Your task to perform on an android device: change alarm snooze length Image 0: 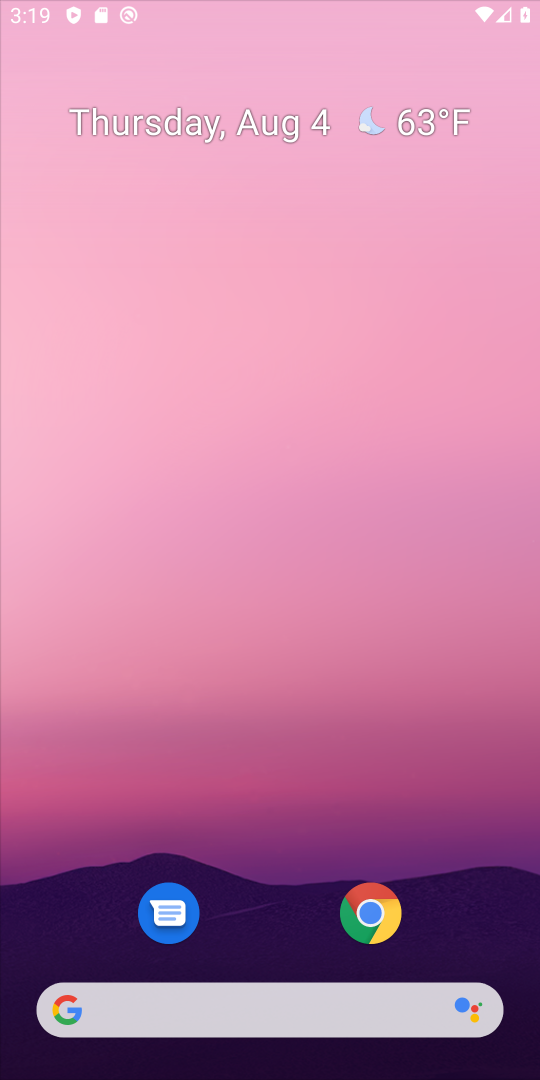
Step 0: press home button
Your task to perform on an android device: change alarm snooze length Image 1: 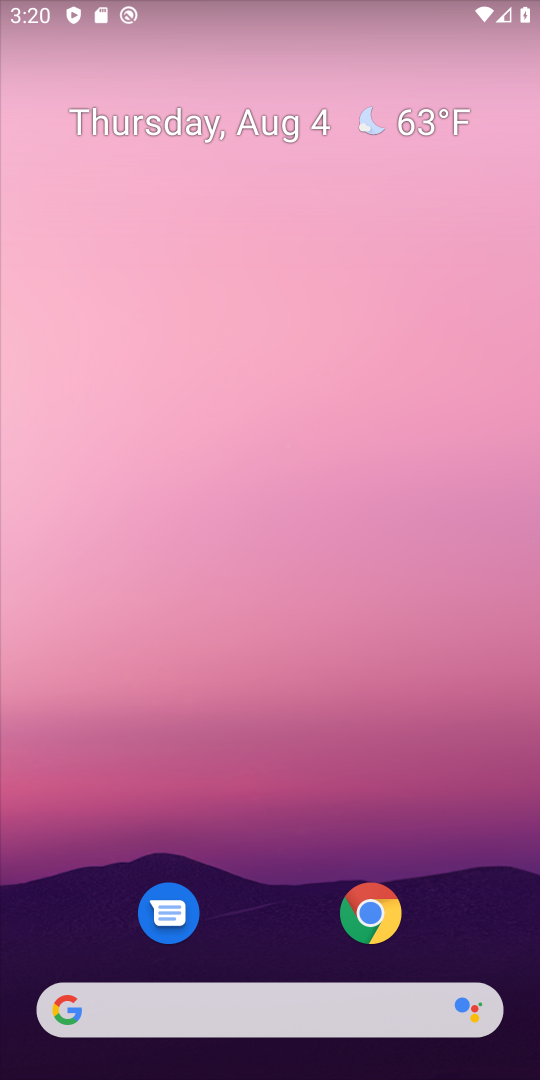
Step 1: drag from (241, 970) to (128, 240)
Your task to perform on an android device: change alarm snooze length Image 2: 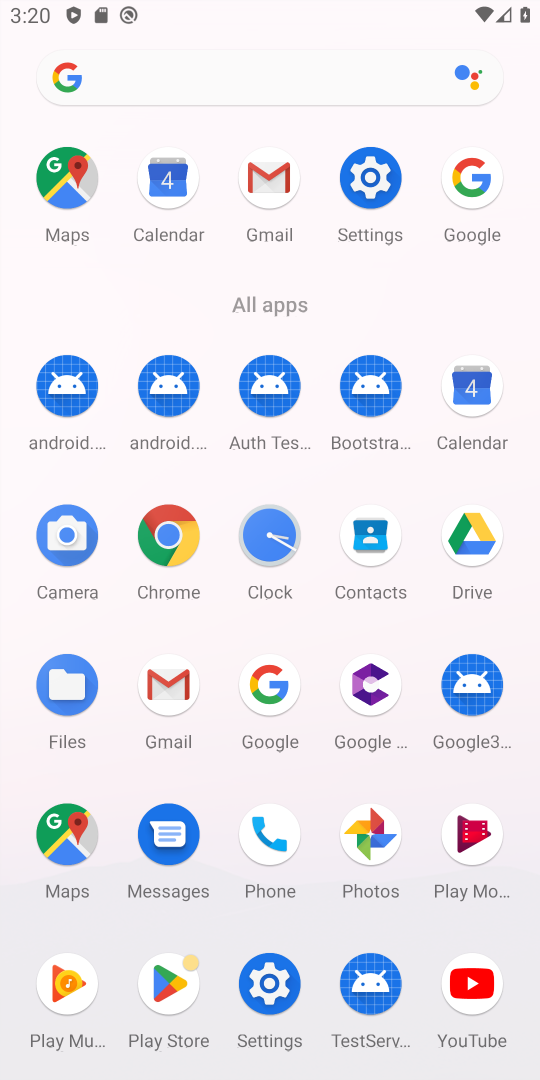
Step 2: click (278, 529)
Your task to perform on an android device: change alarm snooze length Image 3: 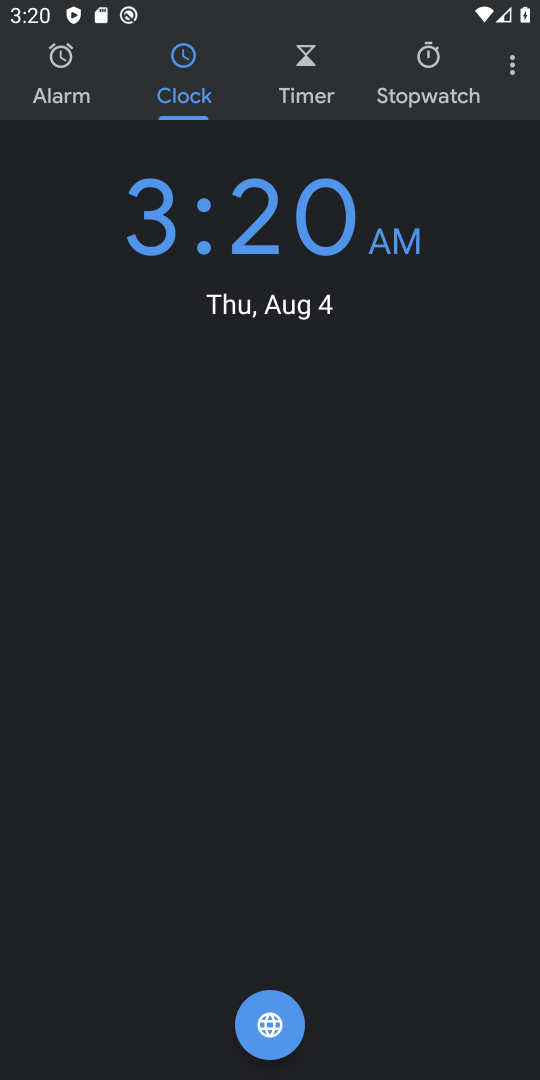
Step 3: click (507, 71)
Your task to perform on an android device: change alarm snooze length Image 4: 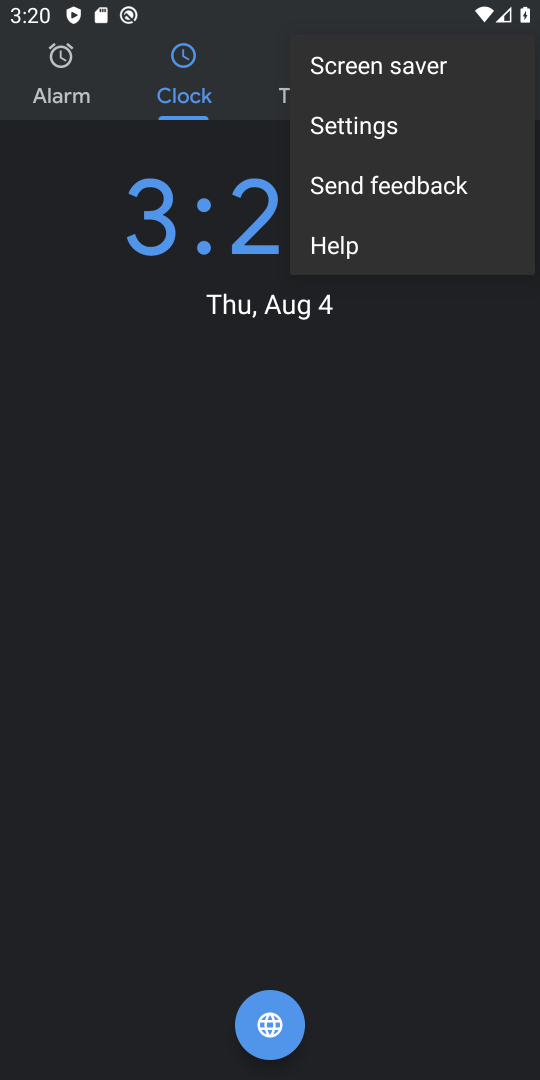
Step 4: click (416, 133)
Your task to perform on an android device: change alarm snooze length Image 5: 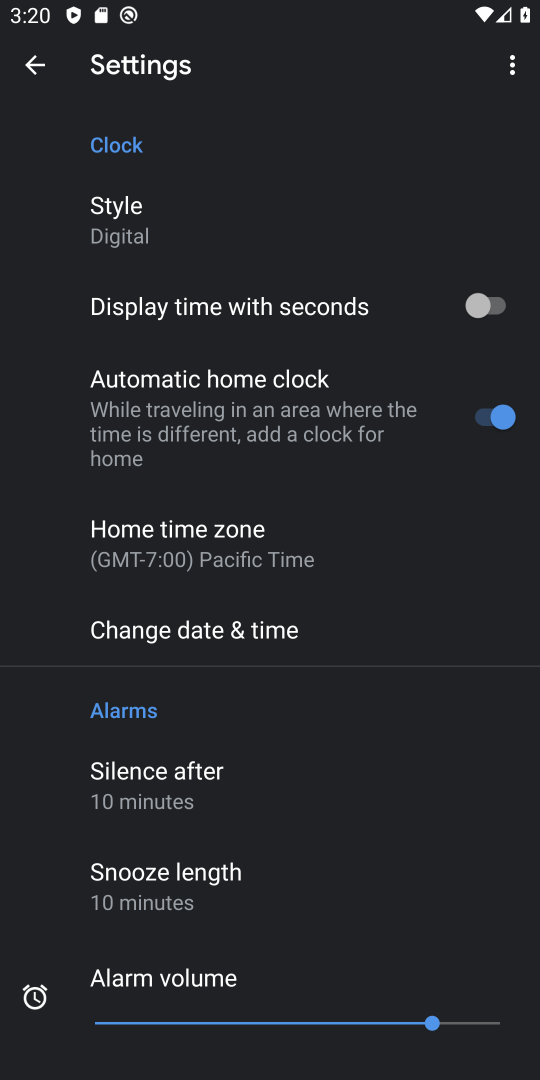
Step 5: click (305, 838)
Your task to perform on an android device: change alarm snooze length Image 6: 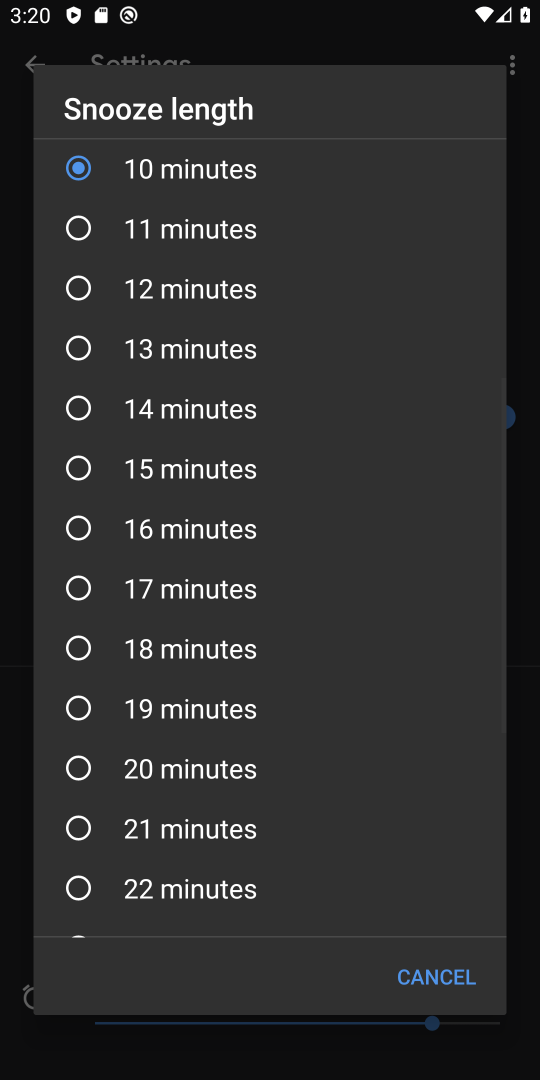
Step 6: click (83, 275)
Your task to perform on an android device: change alarm snooze length Image 7: 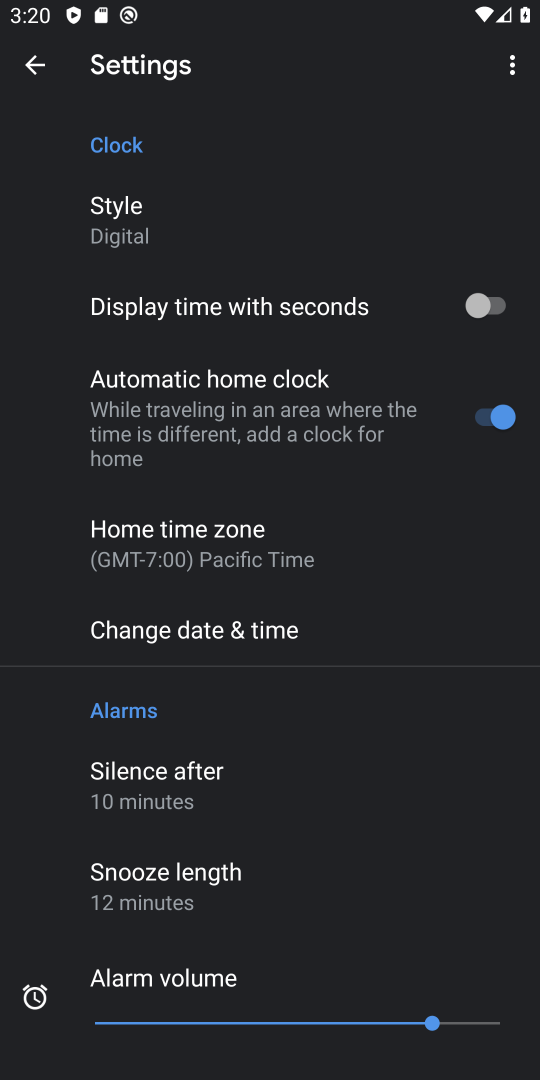
Step 7: task complete